Your task to perform on an android device: Go to accessibility settings Image 0: 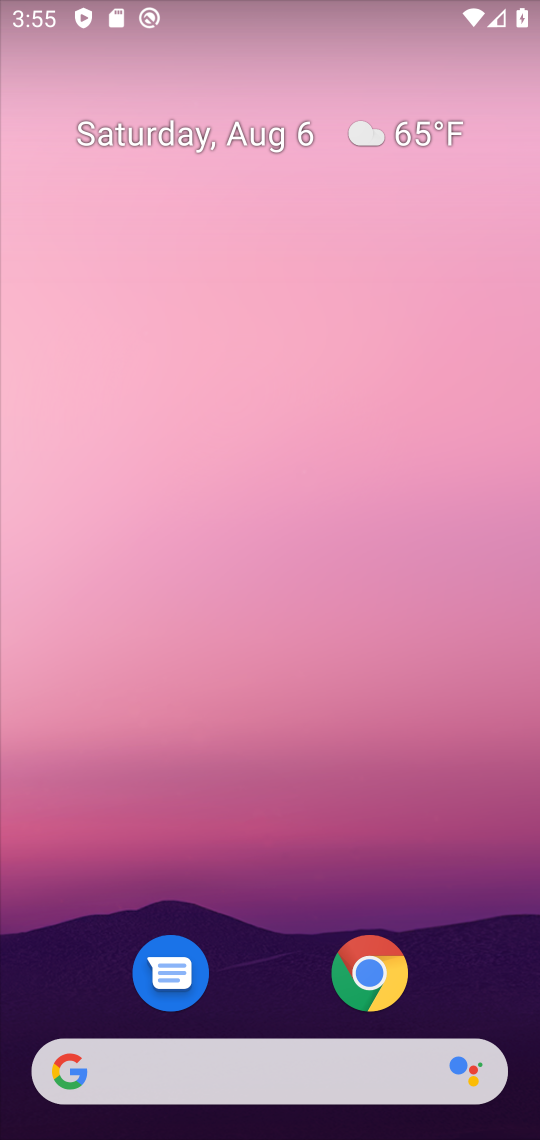
Step 0: drag from (302, 788) to (257, 10)
Your task to perform on an android device: Go to accessibility settings Image 1: 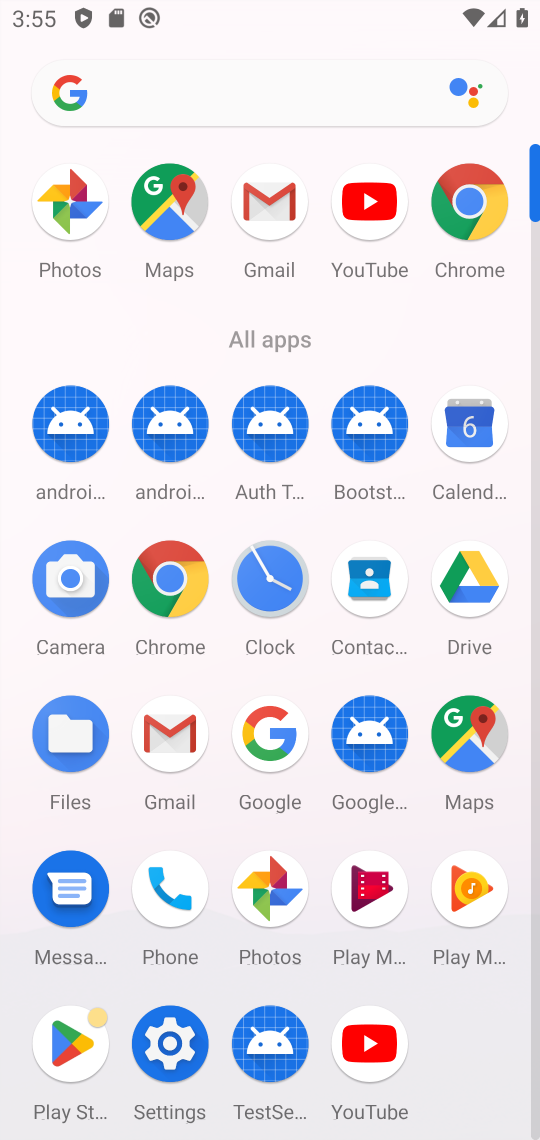
Step 1: click (151, 1039)
Your task to perform on an android device: Go to accessibility settings Image 2: 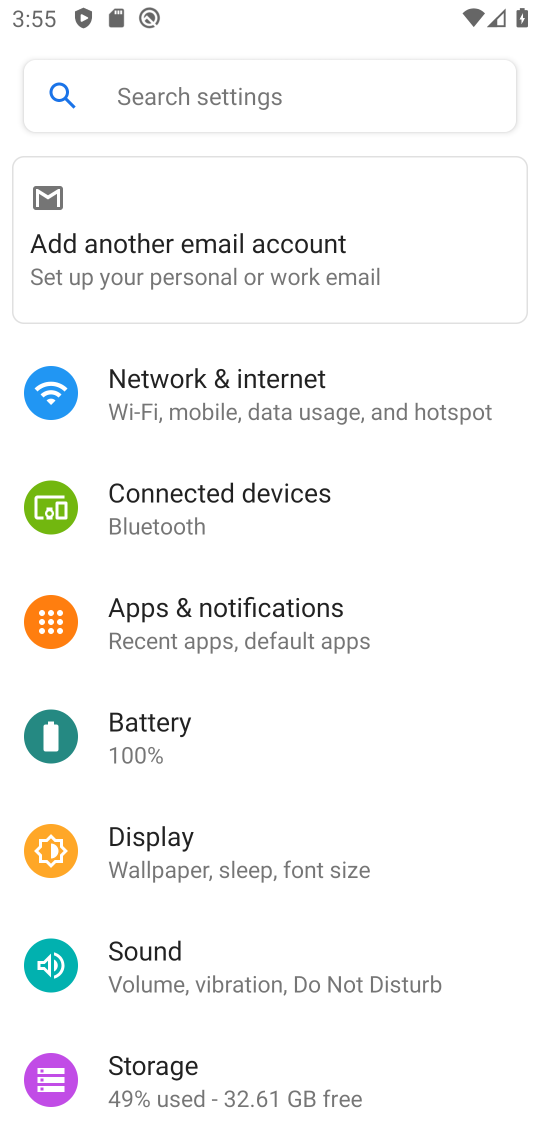
Step 2: drag from (307, 855) to (350, 232)
Your task to perform on an android device: Go to accessibility settings Image 3: 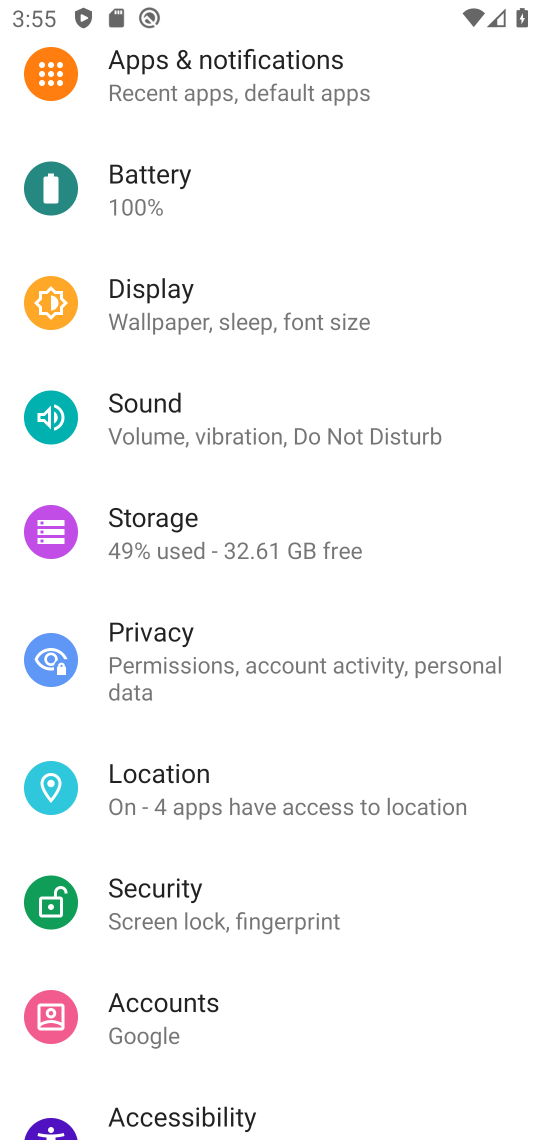
Step 3: drag from (392, 961) to (409, 469)
Your task to perform on an android device: Go to accessibility settings Image 4: 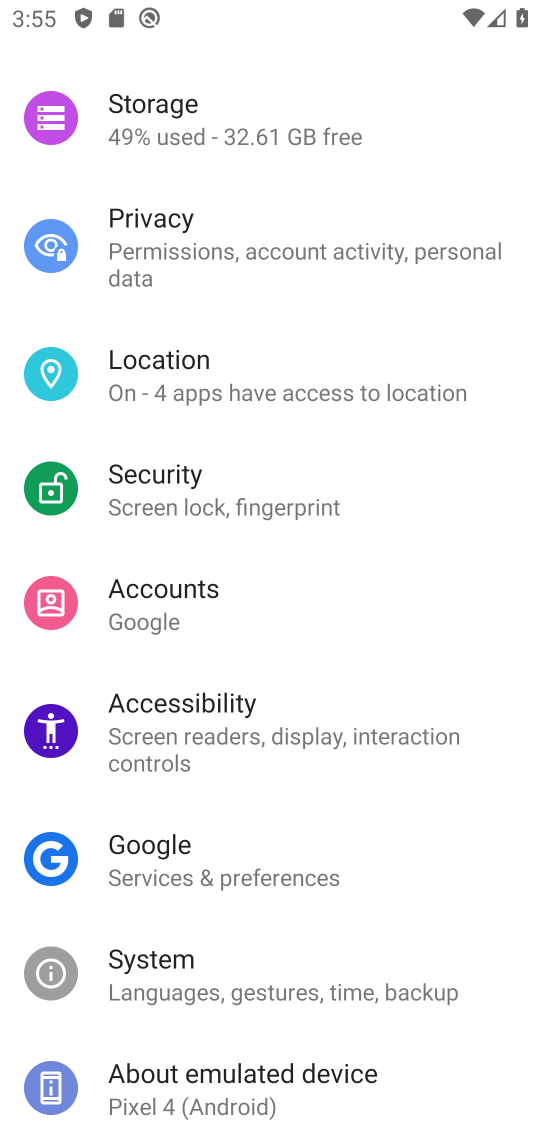
Step 4: click (226, 713)
Your task to perform on an android device: Go to accessibility settings Image 5: 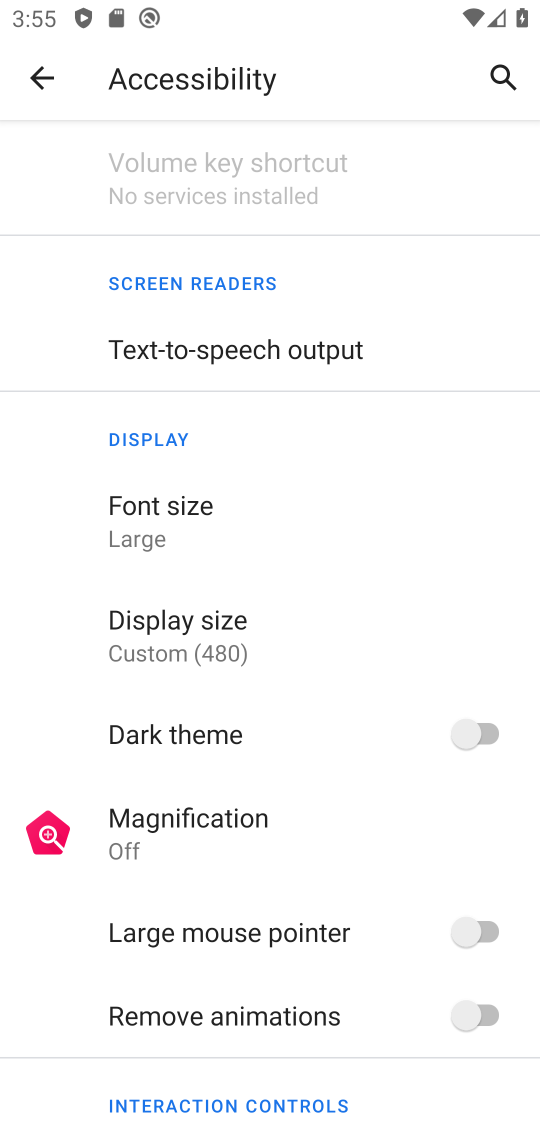
Step 5: task complete